Your task to perform on an android device: Open Wikipedia Image 0: 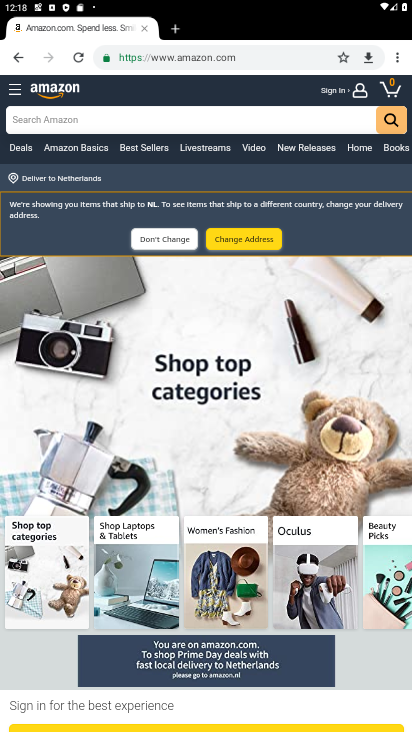
Step 0: press home button
Your task to perform on an android device: Open Wikipedia Image 1: 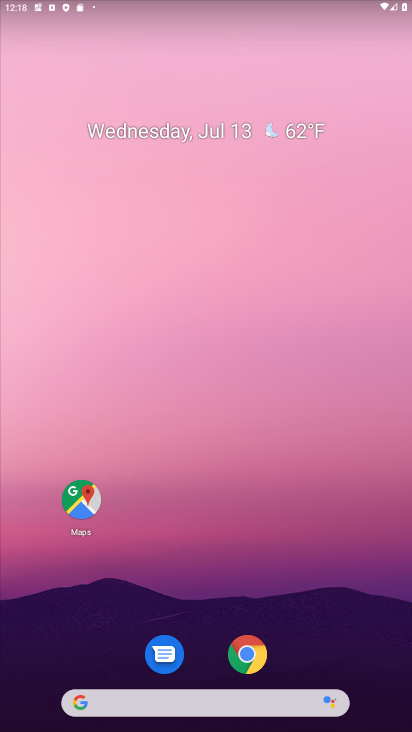
Step 1: drag from (194, 715) to (238, 372)
Your task to perform on an android device: Open Wikipedia Image 2: 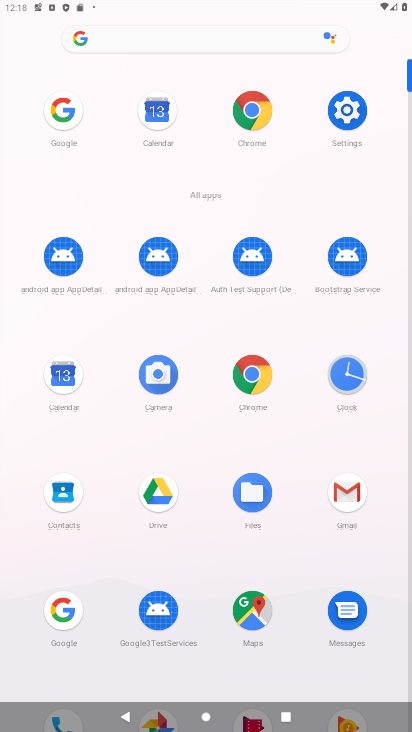
Step 2: click (263, 381)
Your task to perform on an android device: Open Wikipedia Image 3: 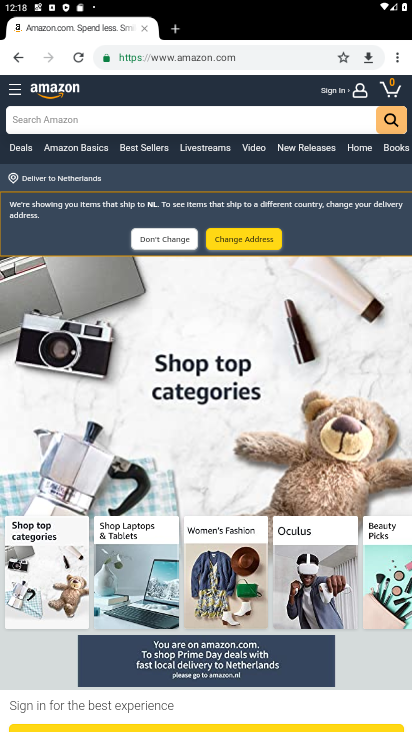
Step 3: drag from (396, 52) to (308, 66)
Your task to perform on an android device: Open Wikipedia Image 4: 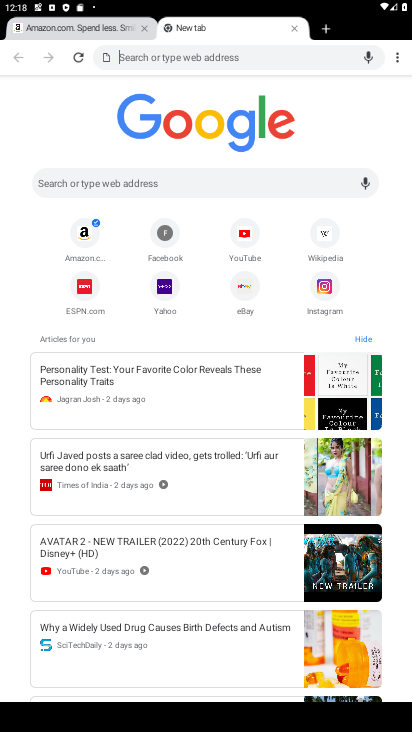
Step 4: click (335, 235)
Your task to perform on an android device: Open Wikipedia Image 5: 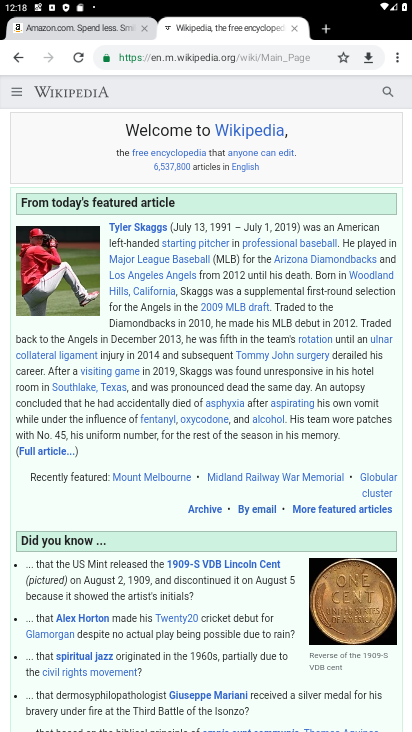
Step 5: task complete